Your task to perform on an android device: Search for "razer naga" on target, select the first entry, add it to the cart, then select checkout. Image 0: 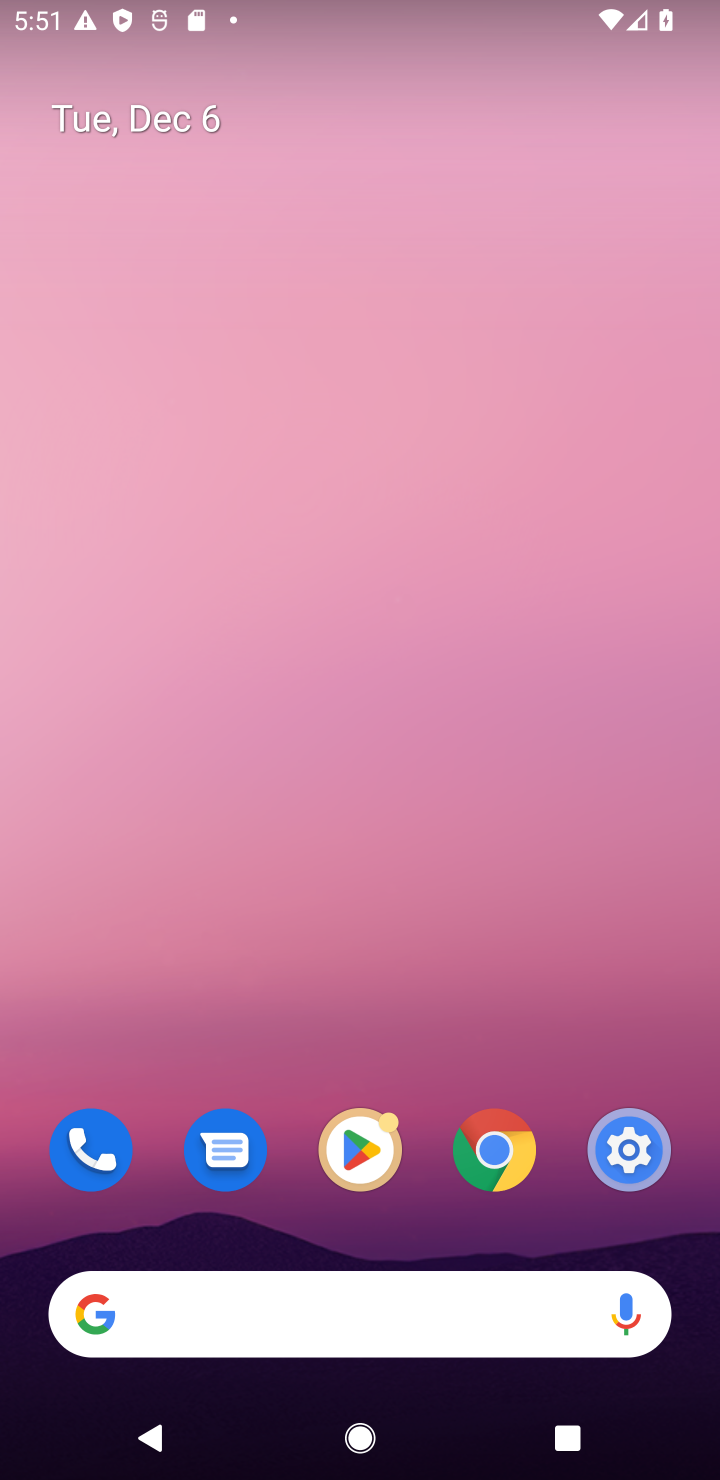
Step 0: click (505, 1147)
Your task to perform on an android device: Search for "razer naga" on target, select the first entry, add it to the cart, then select checkout. Image 1: 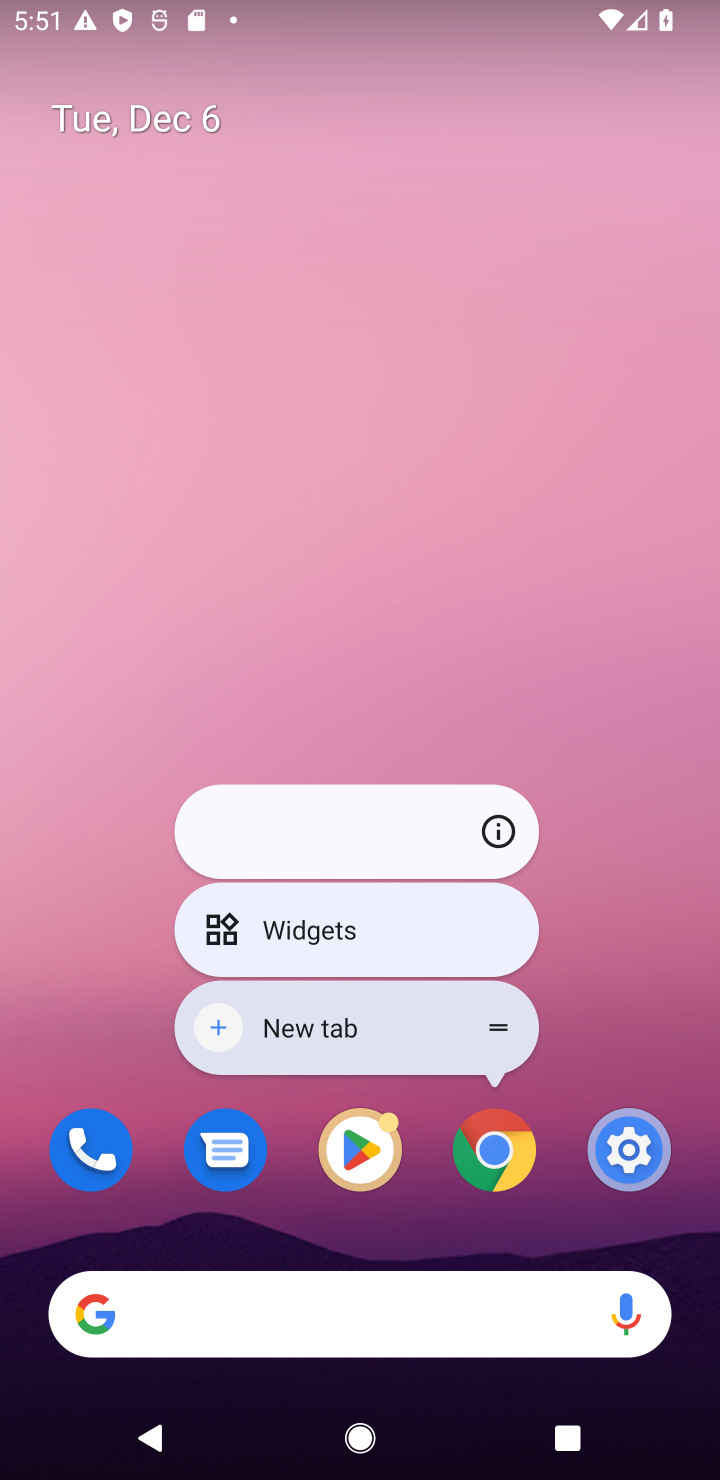
Step 1: click (502, 1147)
Your task to perform on an android device: Search for "razer naga" on target, select the first entry, add it to the cart, then select checkout. Image 2: 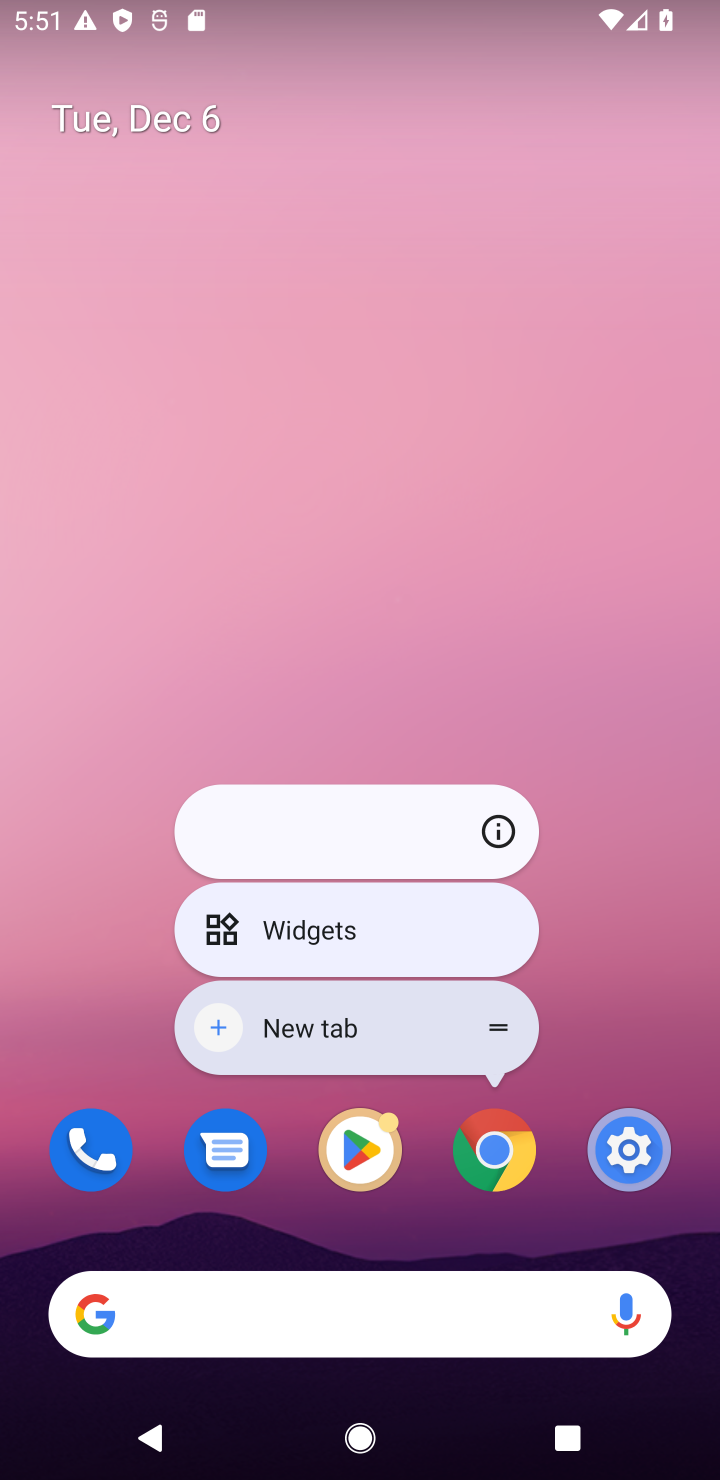
Step 2: click (503, 1158)
Your task to perform on an android device: Search for "razer naga" on target, select the first entry, add it to the cart, then select checkout. Image 3: 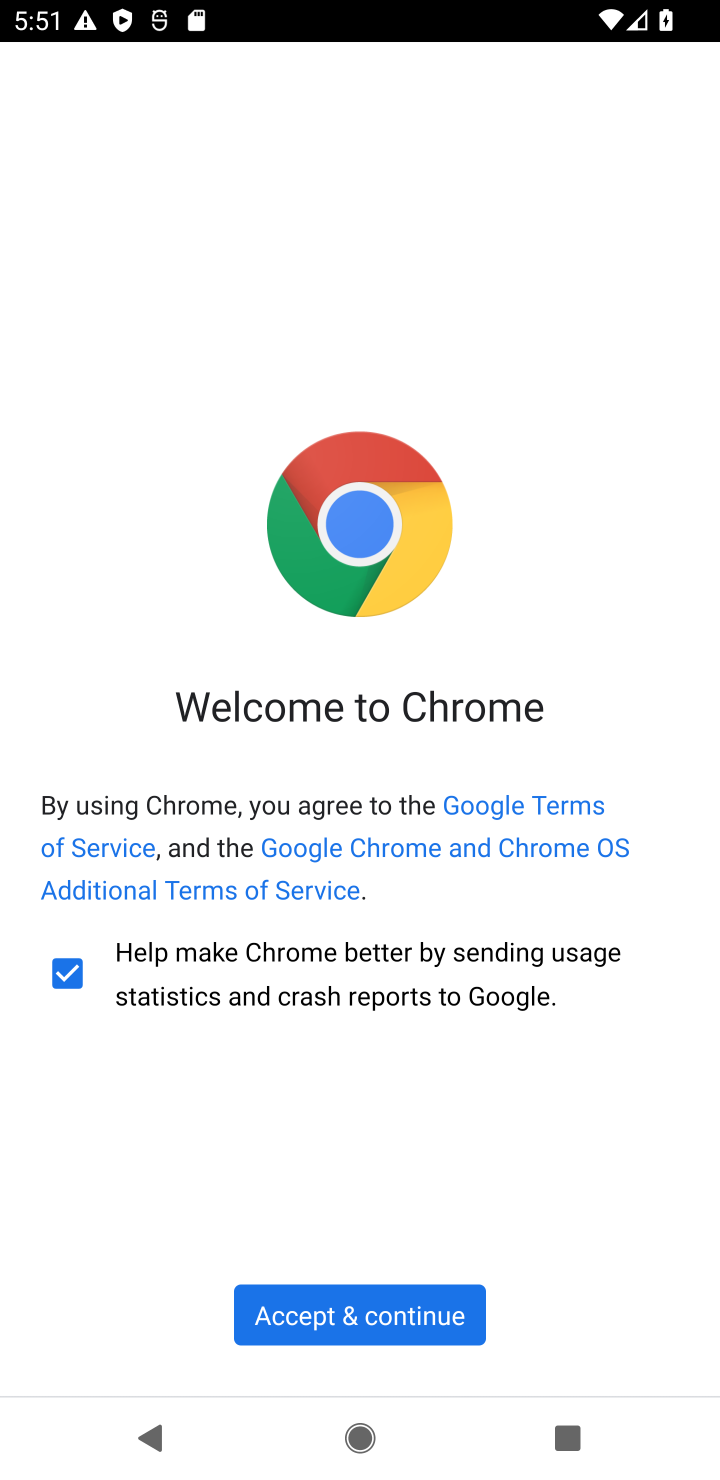
Step 3: click (355, 1318)
Your task to perform on an android device: Search for "razer naga" on target, select the first entry, add it to the cart, then select checkout. Image 4: 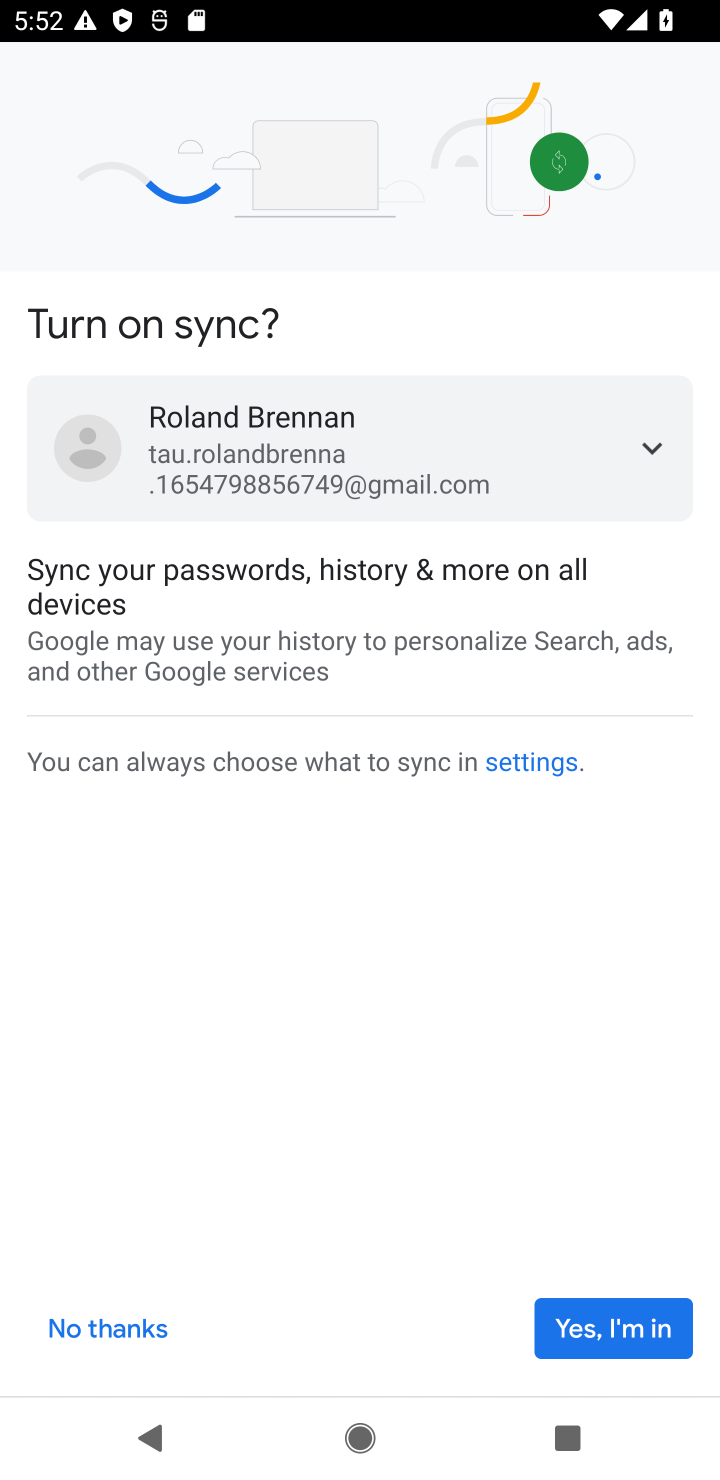
Step 4: click (126, 1331)
Your task to perform on an android device: Search for "razer naga" on target, select the first entry, add it to the cart, then select checkout. Image 5: 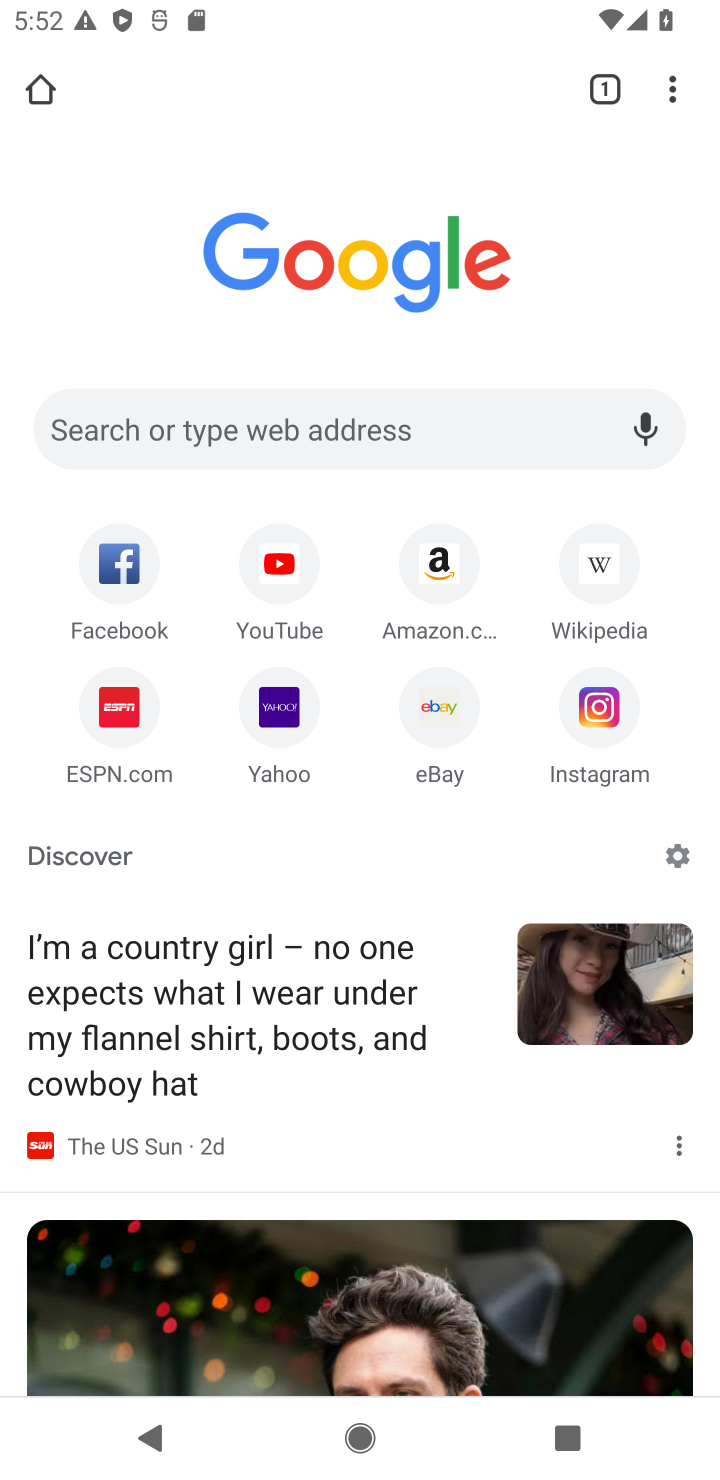
Step 5: click (276, 417)
Your task to perform on an android device: Search for "razer naga" on target, select the first entry, add it to the cart, then select checkout. Image 6: 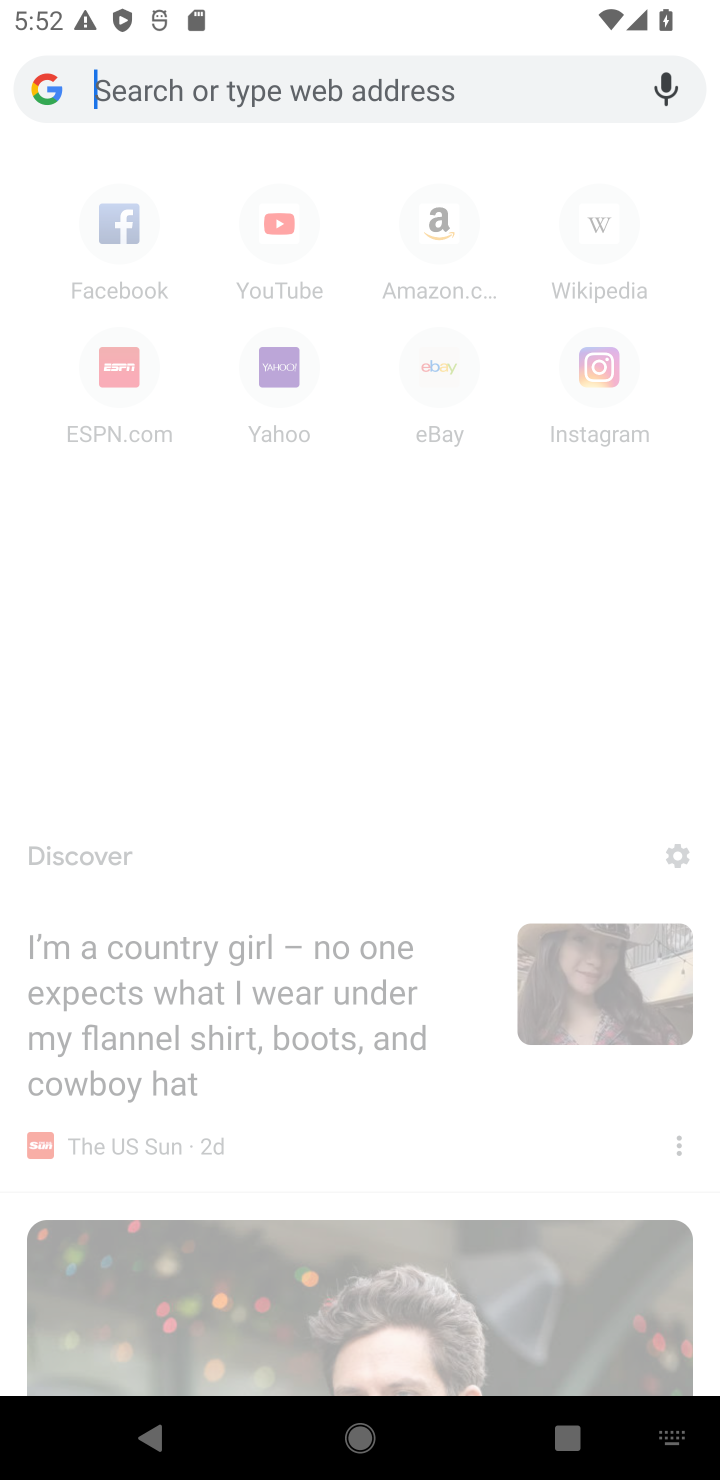
Step 6: type "target.com"
Your task to perform on an android device: Search for "razer naga" on target, select the first entry, add it to the cart, then select checkout. Image 7: 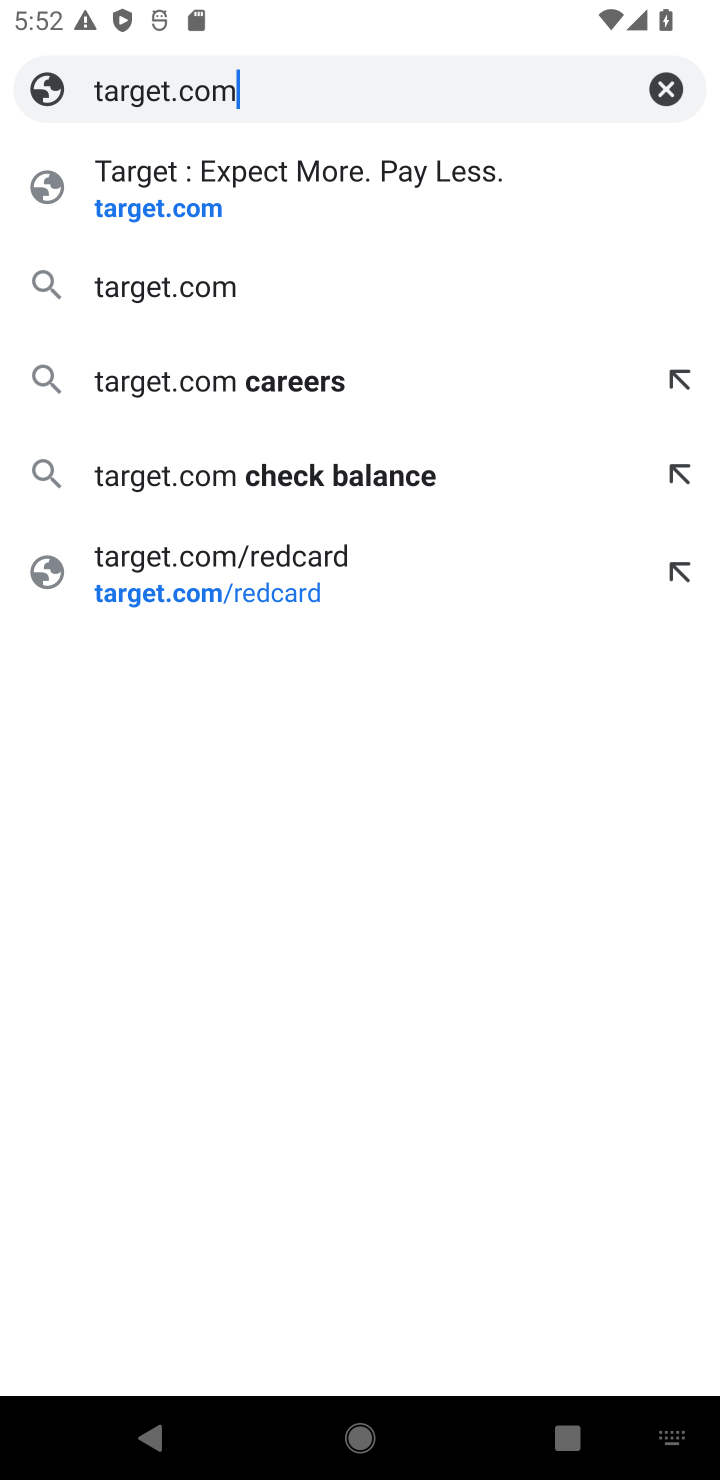
Step 7: click (185, 185)
Your task to perform on an android device: Search for "razer naga" on target, select the first entry, add it to the cart, then select checkout. Image 8: 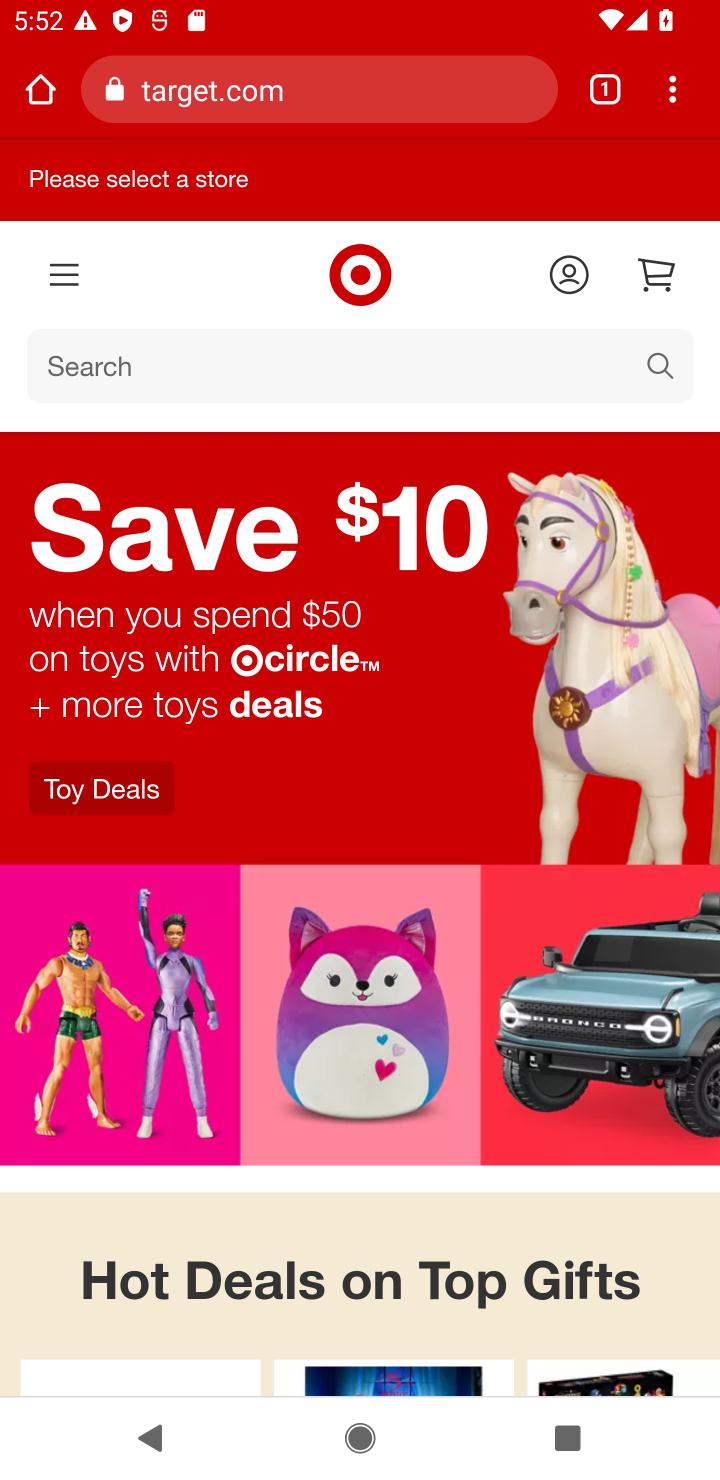
Step 8: click (76, 364)
Your task to perform on an android device: Search for "razer naga" on target, select the first entry, add it to the cart, then select checkout. Image 9: 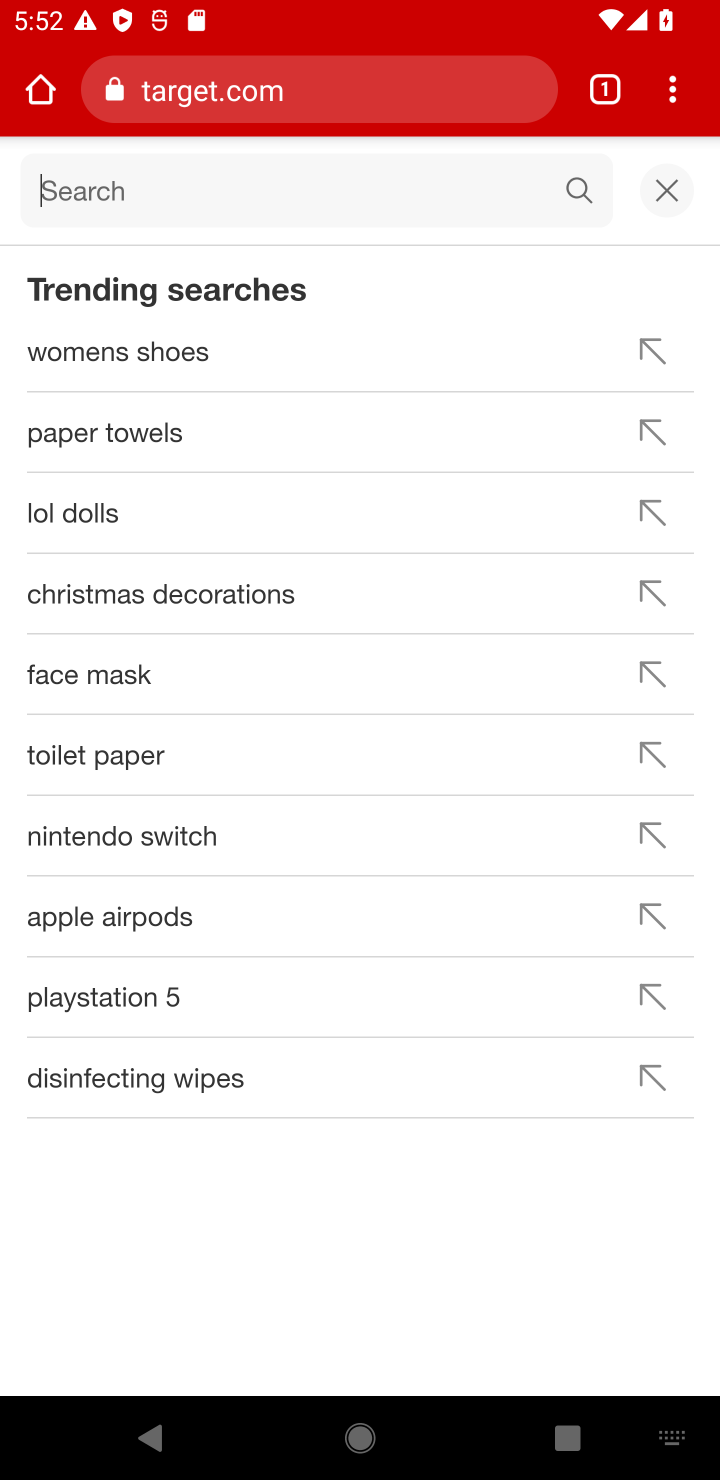
Step 9: type "razer naga"
Your task to perform on an android device: Search for "razer naga" on target, select the first entry, add it to the cart, then select checkout. Image 10: 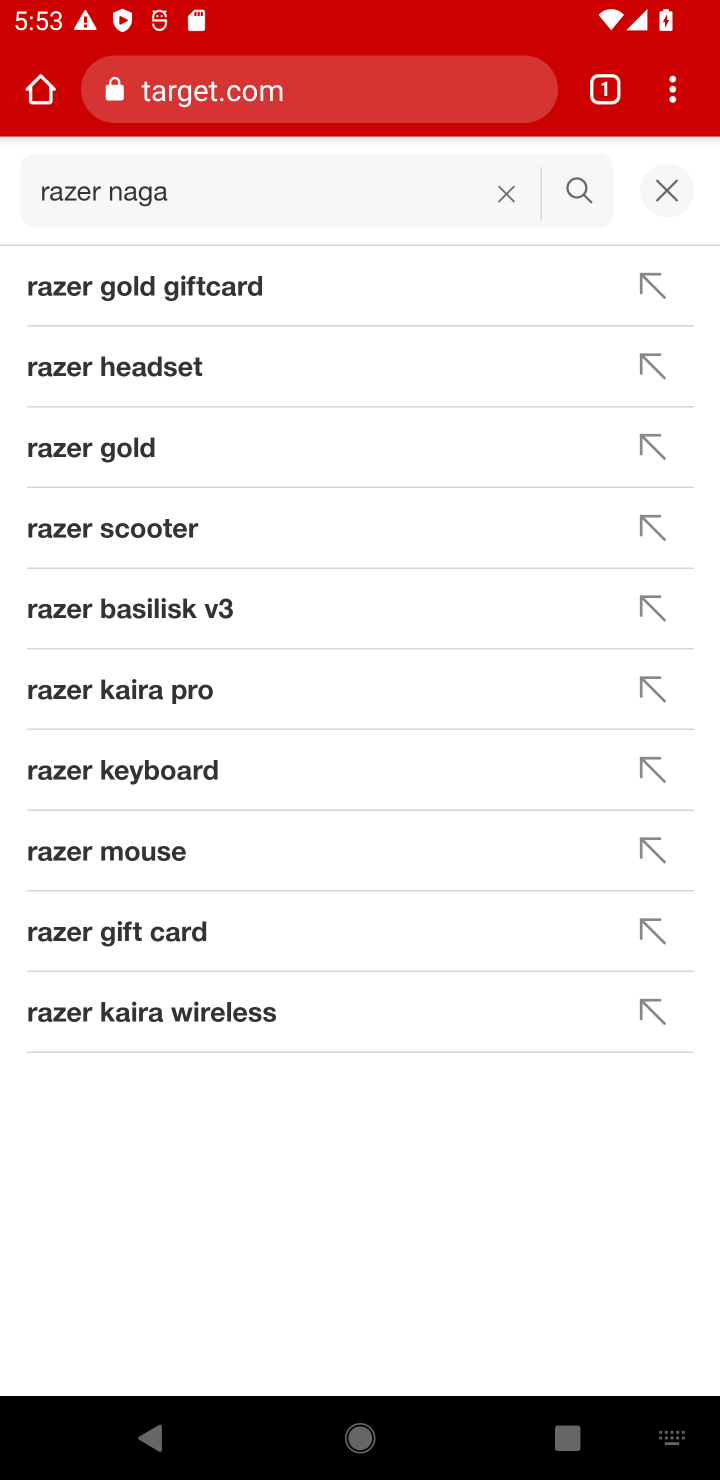
Step 10: click (119, 193)
Your task to perform on an android device: Search for "razer naga" on target, select the first entry, add it to the cart, then select checkout. Image 11: 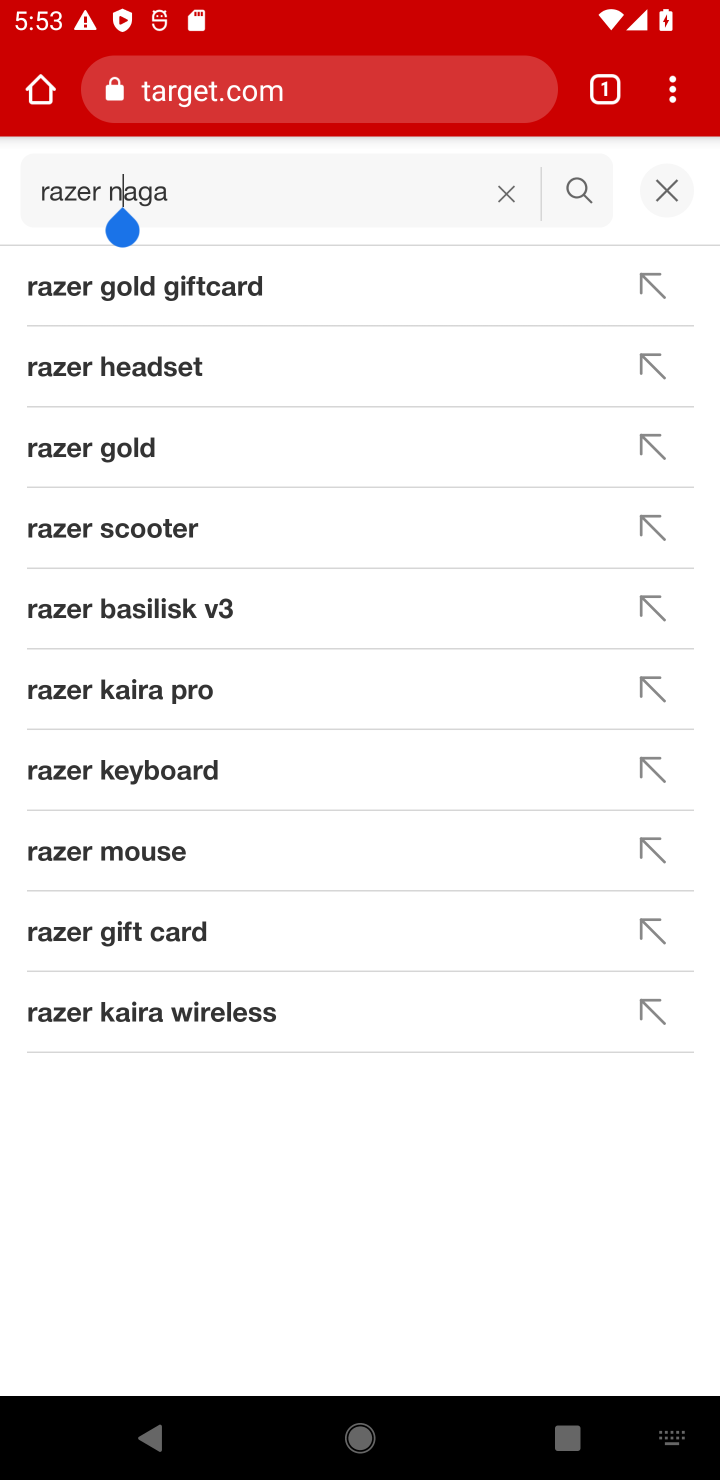
Step 11: click (571, 179)
Your task to perform on an android device: Search for "razer naga" on target, select the first entry, add it to the cart, then select checkout. Image 12: 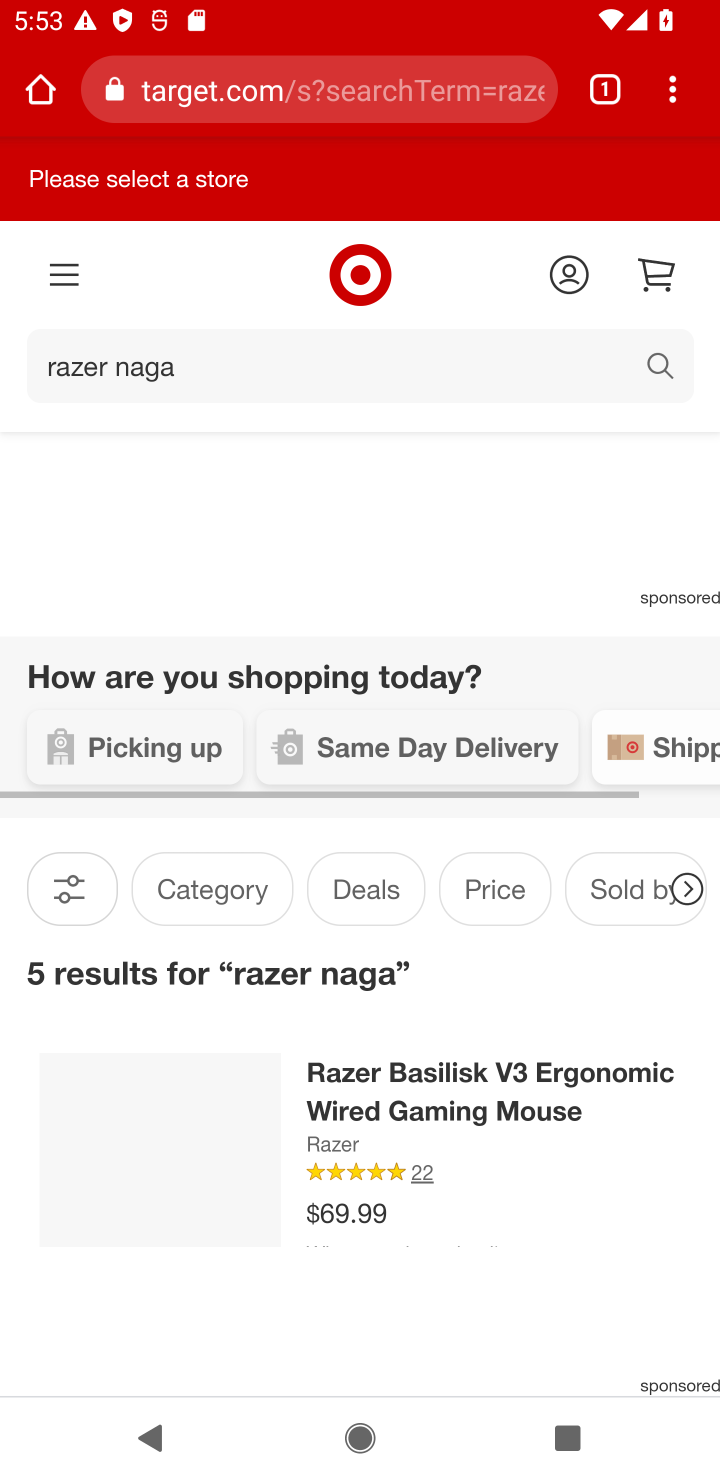
Step 12: task complete